Your task to perform on an android device: turn notification dots off Image 0: 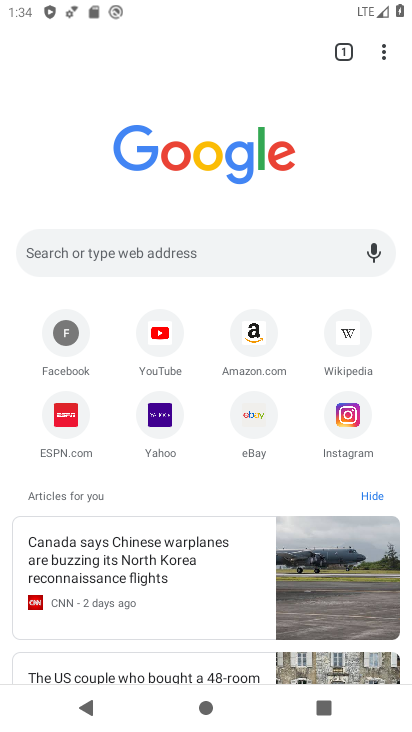
Step 0: press home button
Your task to perform on an android device: turn notification dots off Image 1: 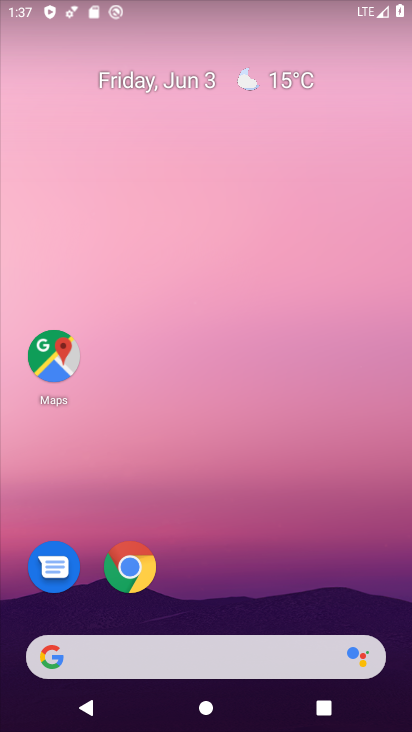
Step 1: drag from (184, 631) to (283, 77)
Your task to perform on an android device: turn notification dots off Image 2: 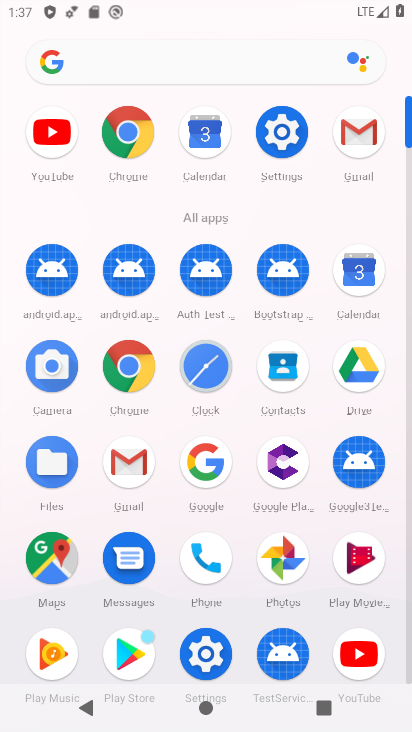
Step 2: click (281, 118)
Your task to perform on an android device: turn notification dots off Image 3: 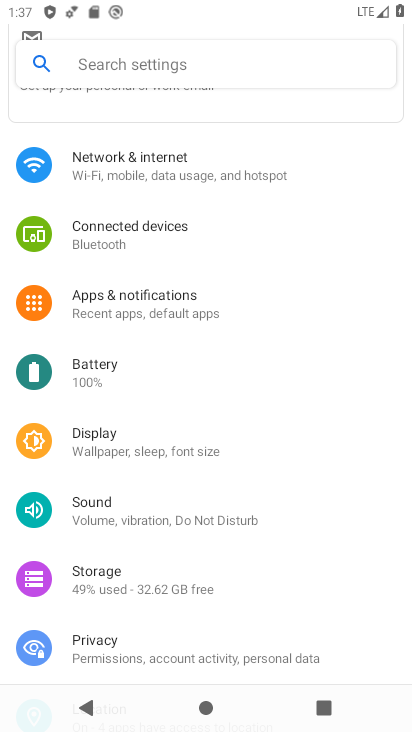
Step 3: click (182, 311)
Your task to perform on an android device: turn notification dots off Image 4: 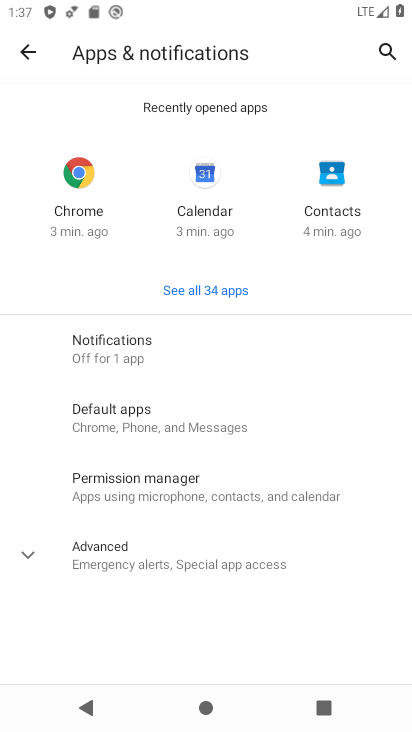
Step 4: click (144, 355)
Your task to perform on an android device: turn notification dots off Image 5: 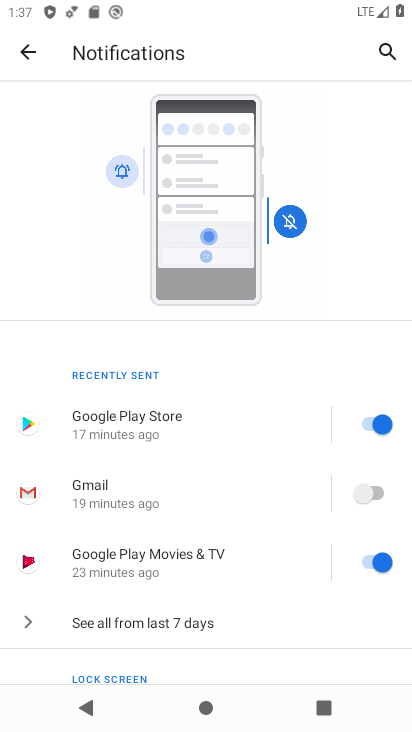
Step 5: drag from (140, 650) to (196, 149)
Your task to perform on an android device: turn notification dots off Image 6: 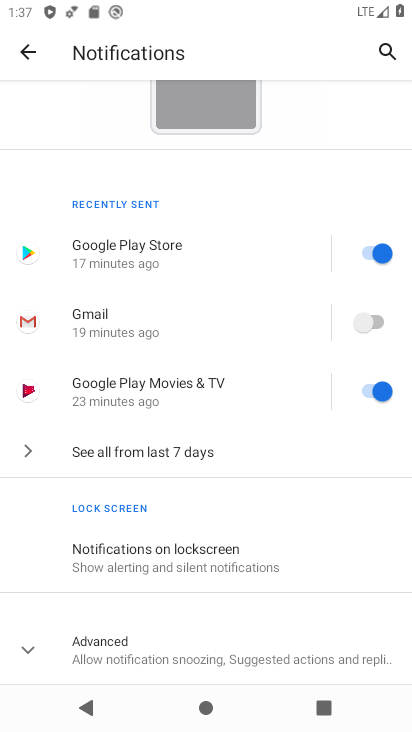
Step 6: click (119, 647)
Your task to perform on an android device: turn notification dots off Image 7: 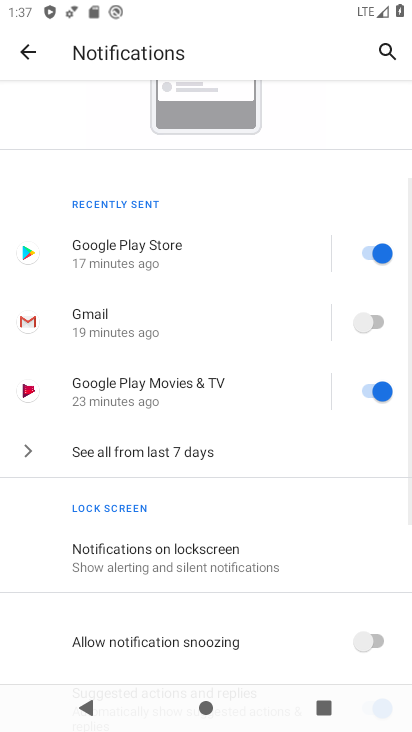
Step 7: drag from (127, 634) to (152, 218)
Your task to perform on an android device: turn notification dots off Image 8: 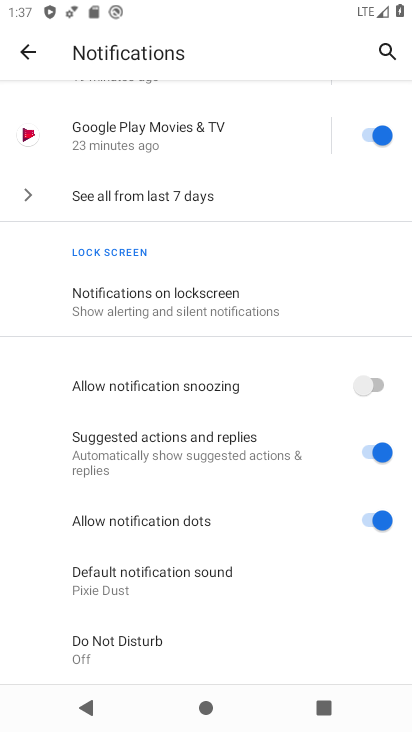
Step 8: click (190, 418)
Your task to perform on an android device: turn notification dots off Image 9: 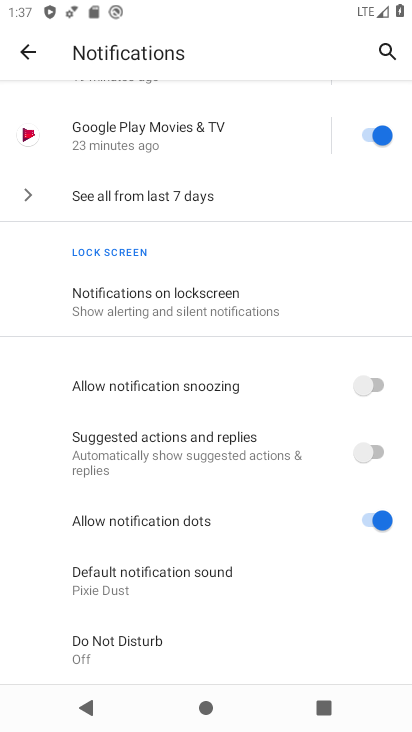
Step 9: click (375, 520)
Your task to perform on an android device: turn notification dots off Image 10: 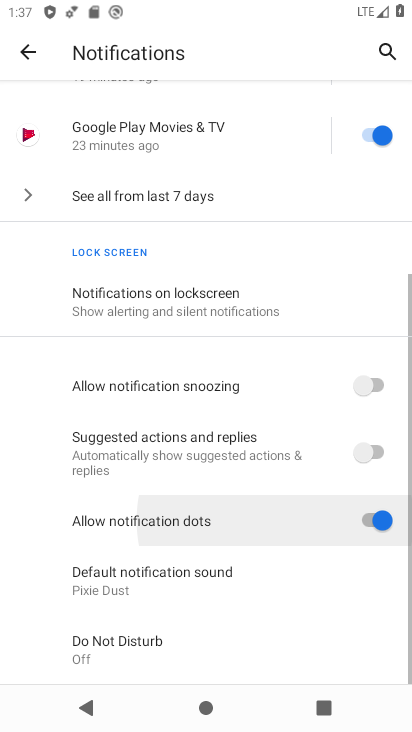
Step 10: click (375, 520)
Your task to perform on an android device: turn notification dots off Image 11: 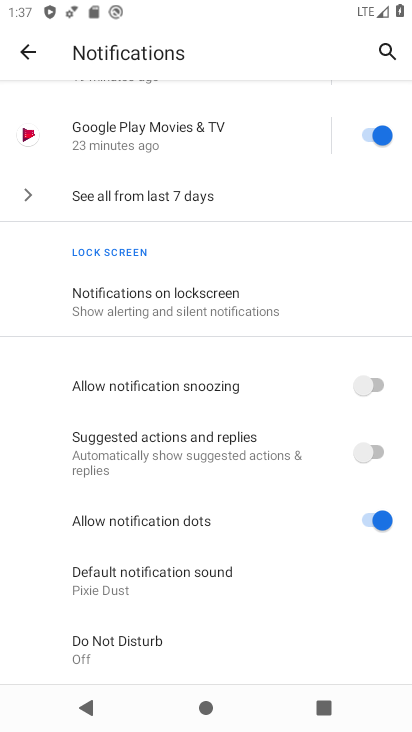
Step 11: task complete